Your task to perform on an android device: Go to Wikipedia Image 0: 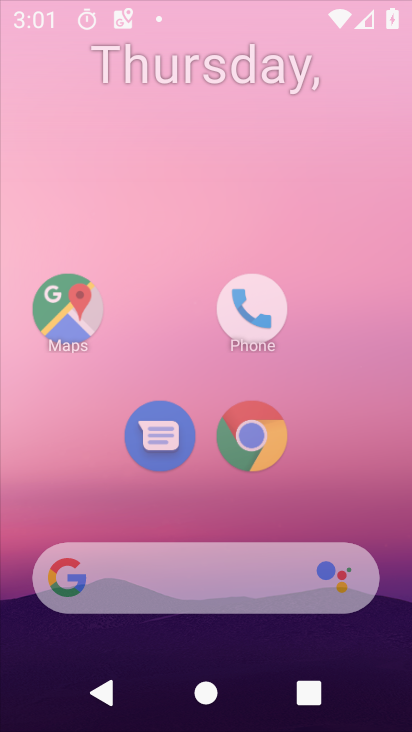
Step 0: drag from (186, 546) to (202, 140)
Your task to perform on an android device: Go to Wikipedia Image 1: 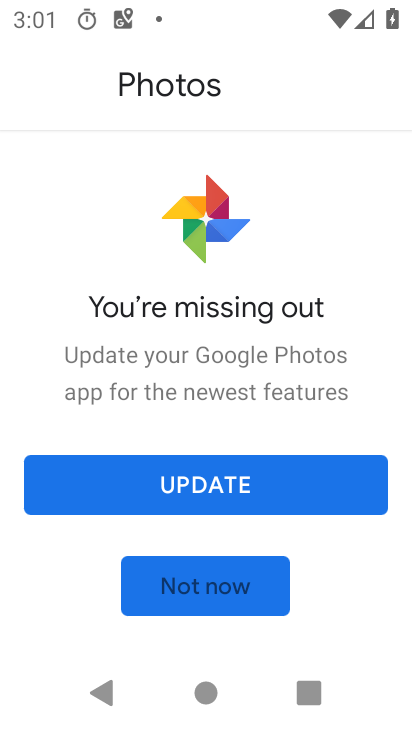
Step 1: press home button
Your task to perform on an android device: Go to Wikipedia Image 2: 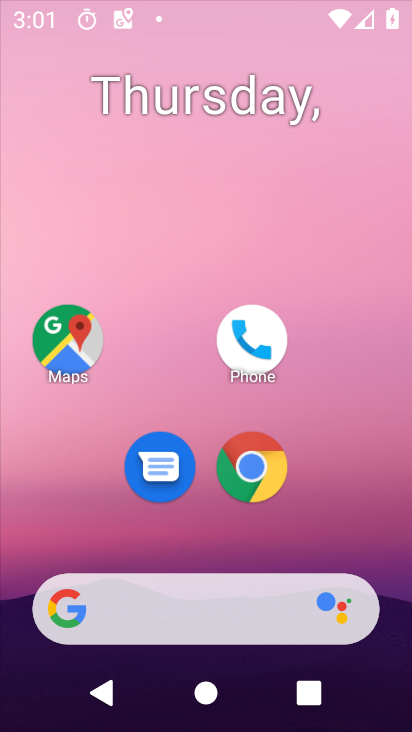
Step 2: drag from (173, 539) to (198, 297)
Your task to perform on an android device: Go to Wikipedia Image 3: 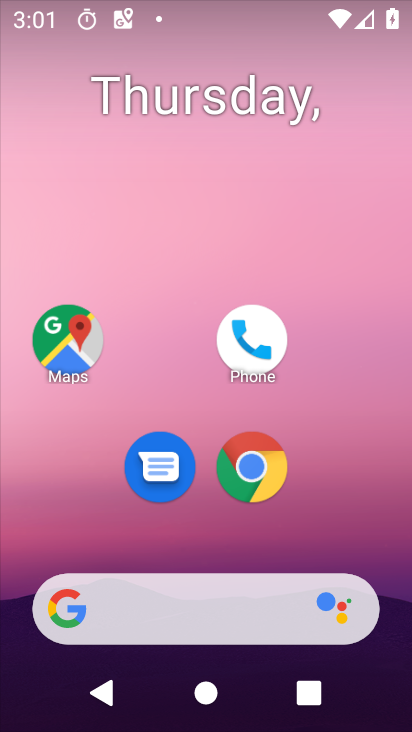
Step 3: drag from (203, 522) to (204, 84)
Your task to perform on an android device: Go to Wikipedia Image 4: 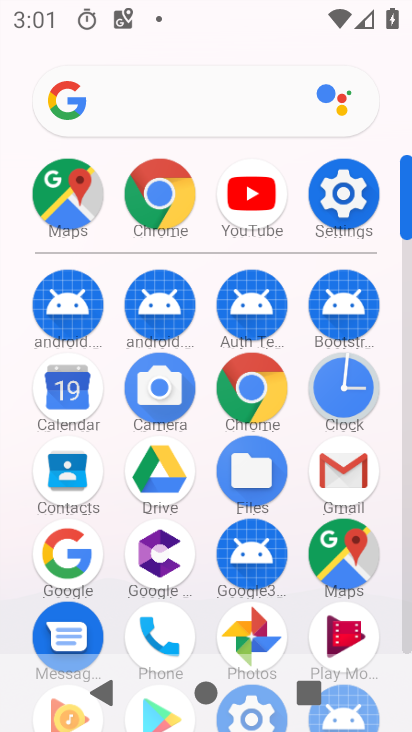
Step 4: click (160, 207)
Your task to perform on an android device: Go to Wikipedia Image 5: 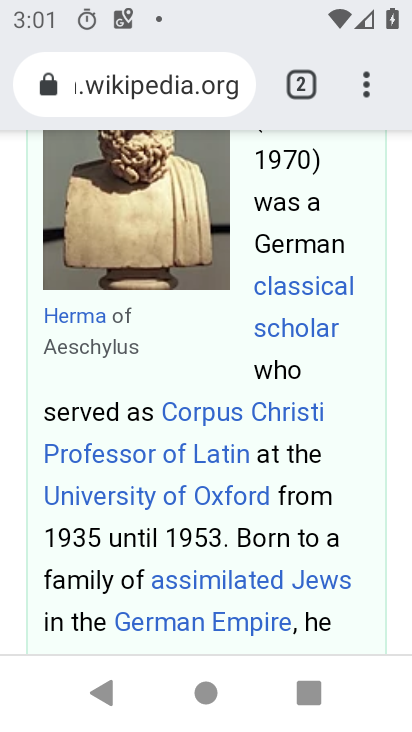
Step 5: task complete